Your task to perform on an android device: Open Yahoo.com Image 0: 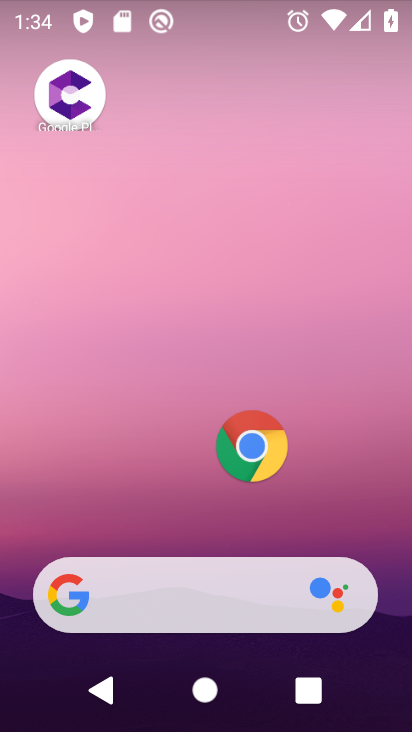
Step 0: click (254, 448)
Your task to perform on an android device: Open Yahoo.com Image 1: 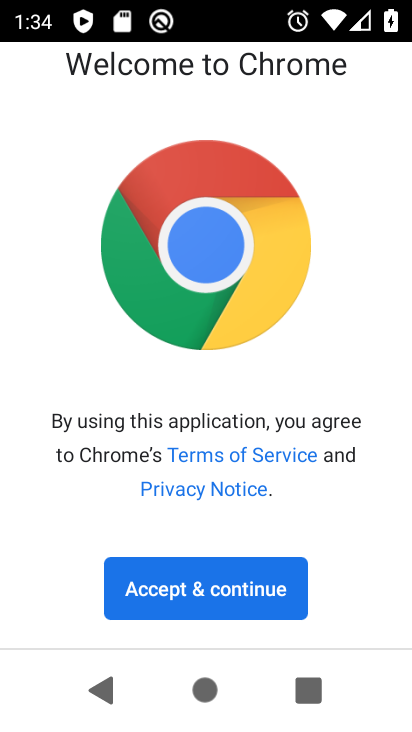
Step 1: click (209, 595)
Your task to perform on an android device: Open Yahoo.com Image 2: 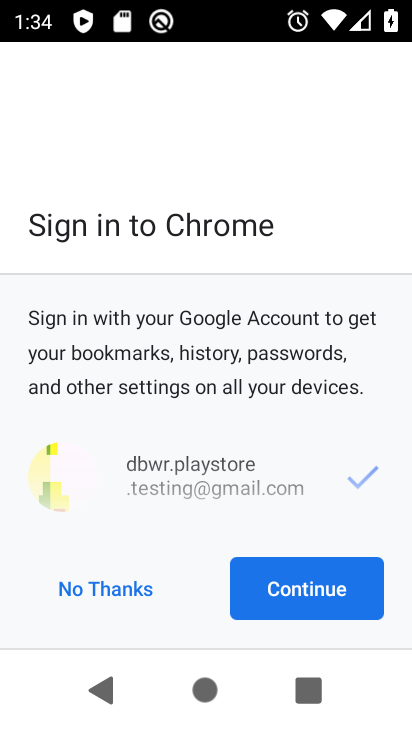
Step 2: click (285, 586)
Your task to perform on an android device: Open Yahoo.com Image 3: 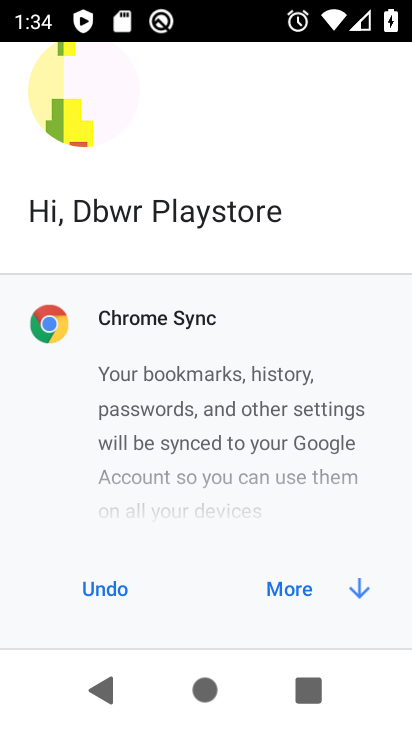
Step 3: click (285, 586)
Your task to perform on an android device: Open Yahoo.com Image 4: 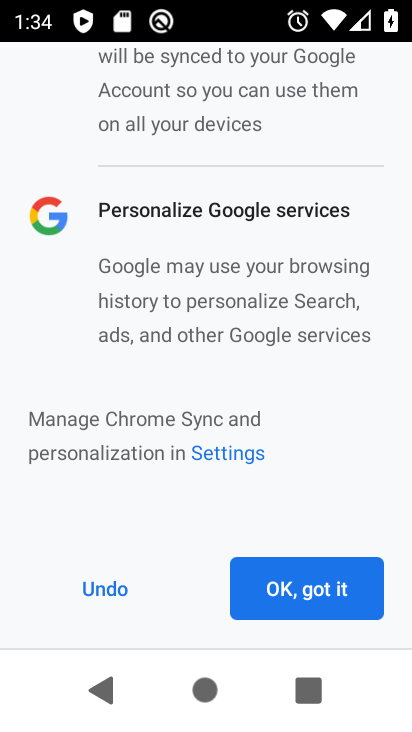
Step 4: click (285, 586)
Your task to perform on an android device: Open Yahoo.com Image 5: 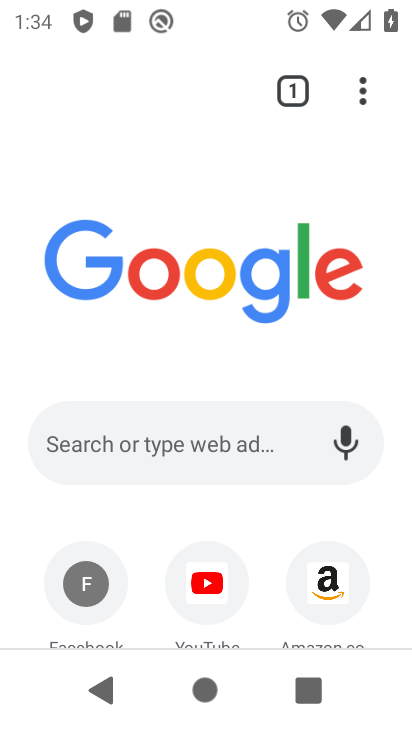
Step 5: drag from (245, 548) to (302, 338)
Your task to perform on an android device: Open Yahoo.com Image 6: 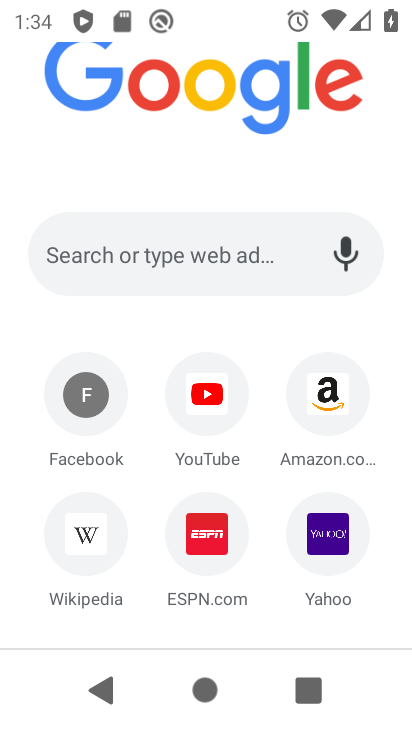
Step 6: click (156, 269)
Your task to perform on an android device: Open Yahoo.com Image 7: 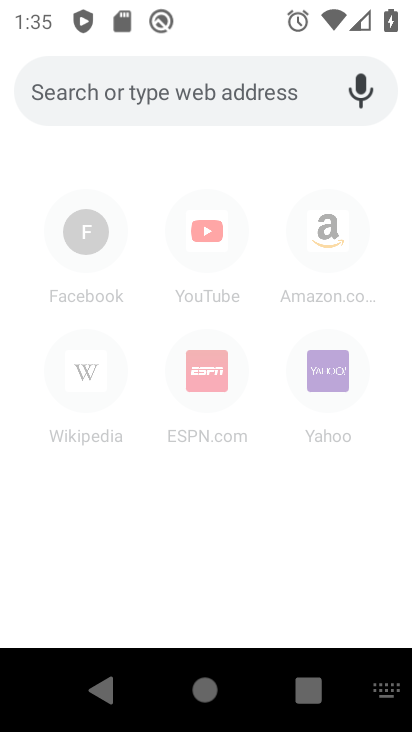
Step 7: type "Yahoo.com"
Your task to perform on an android device: Open Yahoo.com Image 8: 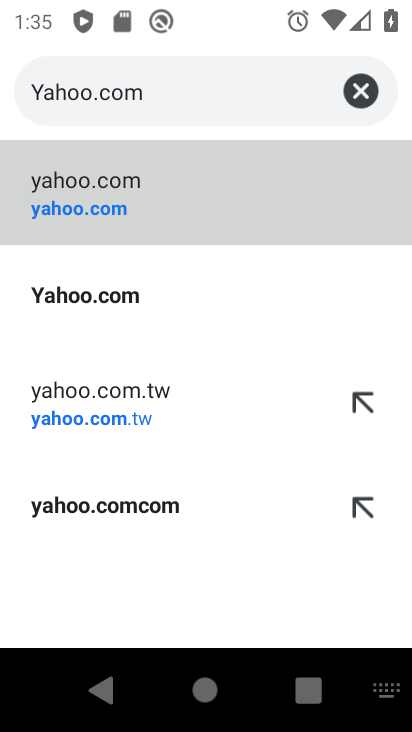
Step 8: click (94, 209)
Your task to perform on an android device: Open Yahoo.com Image 9: 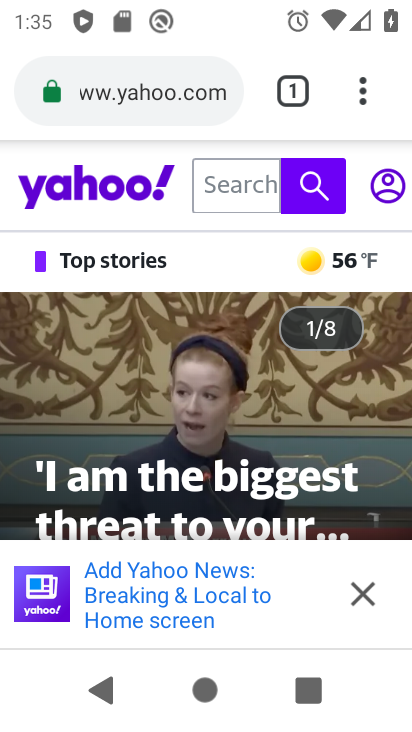
Step 9: task complete